Your task to perform on an android device: turn off airplane mode Image 0: 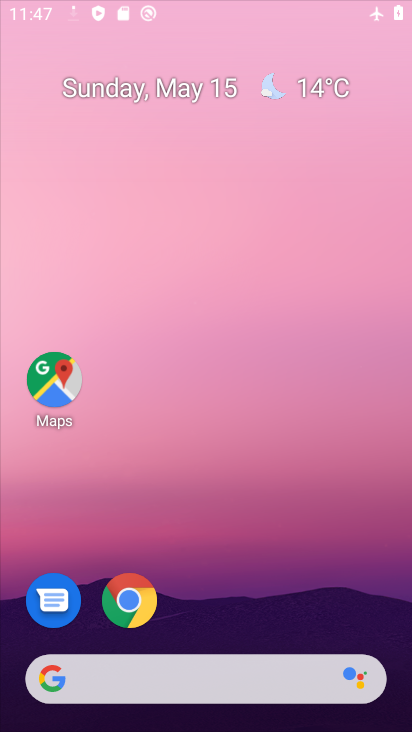
Step 0: drag from (225, 555) to (236, 6)
Your task to perform on an android device: turn off airplane mode Image 1: 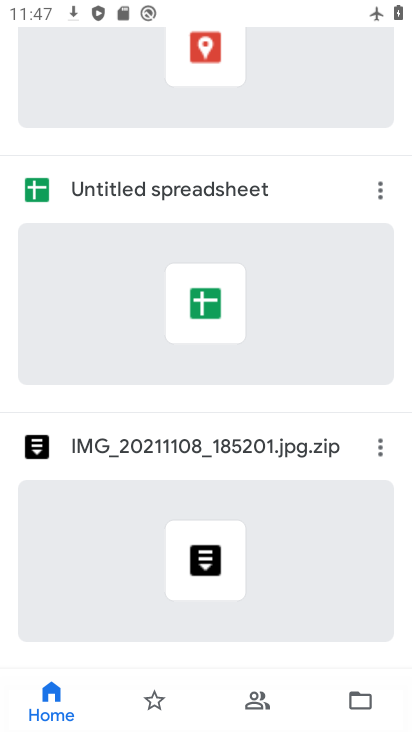
Step 1: press back button
Your task to perform on an android device: turn off airplane mode Image 2: 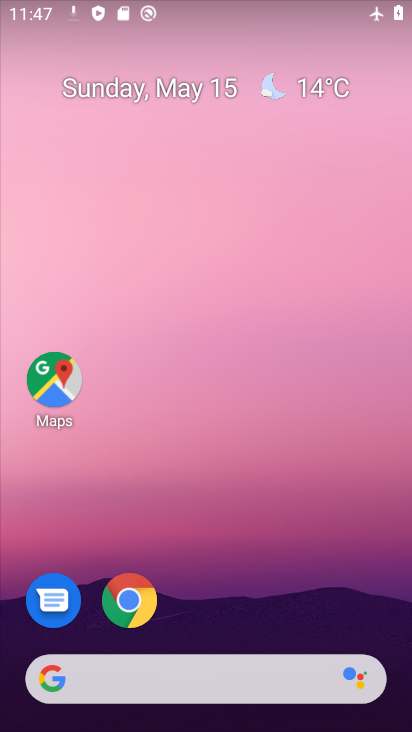
Step 2: drag from (229, 600) to (226, 59)
Your task to perform on an android device: turn off airplane mode Image 3: 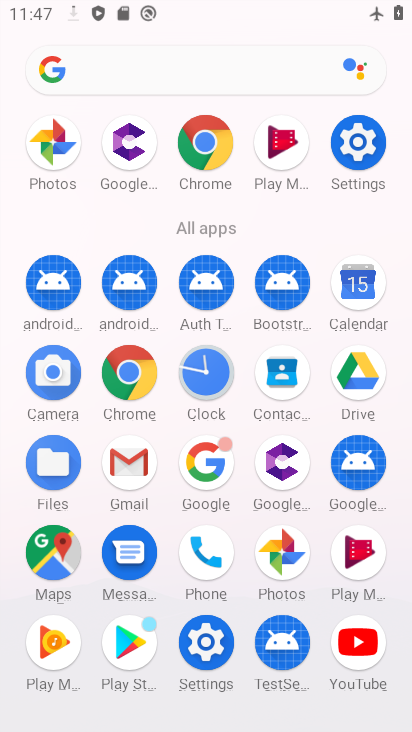
Step 3: click (354, 139)
Your task to perform on an android device: turn off airplane mode Image 4: 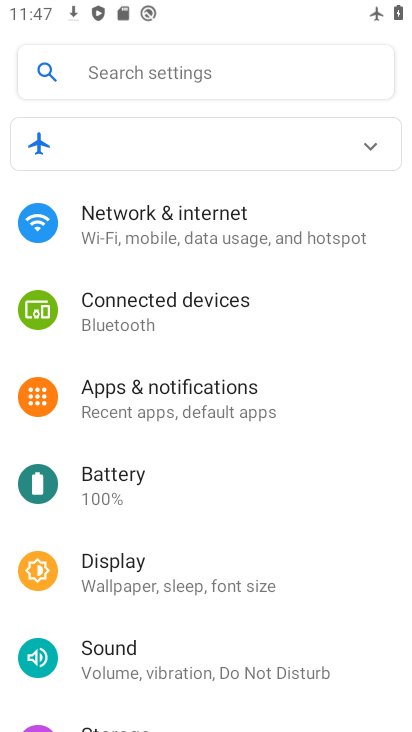
Step 4: drag from (227, 508) to (227, 146)
Your task to perform on an android device: turn off airplane mode Image 5: 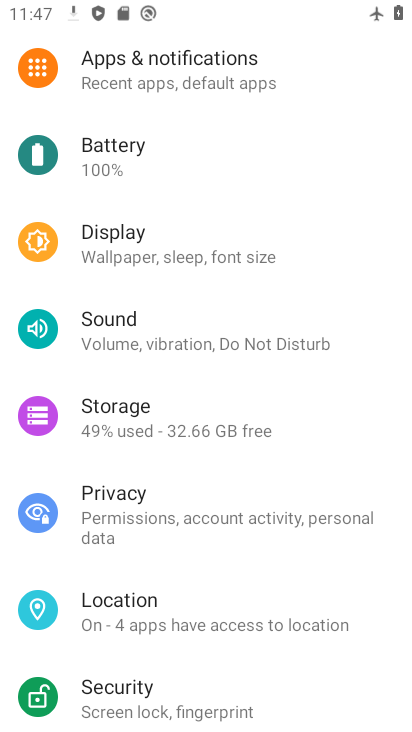
Step 5: drag from (227, 145) to (229, 485)
Your task to perform on an android device: turn off airplane mode Image 6: 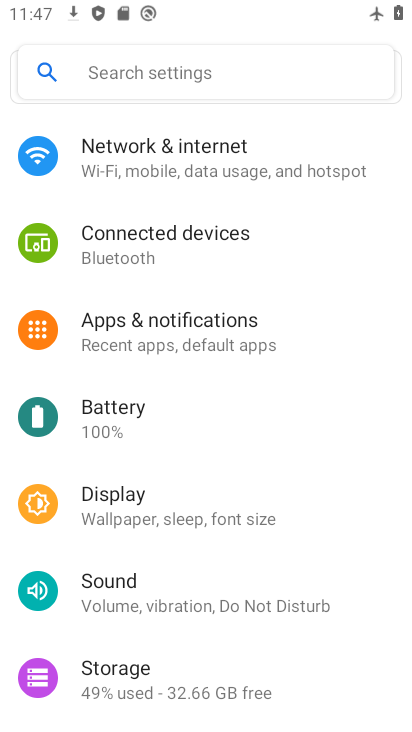
Step 6: drag from (241, 566) to (259, 236)
Your task to perform on an android device: turn off airplane mode Image 7: 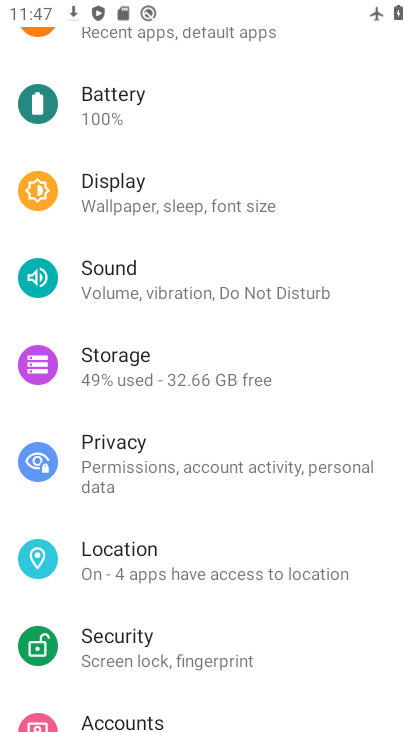
Step 7: drag from (247, 589) to (269, 153)
Your task to perform on an android device: turn off airplane mode Image 8: 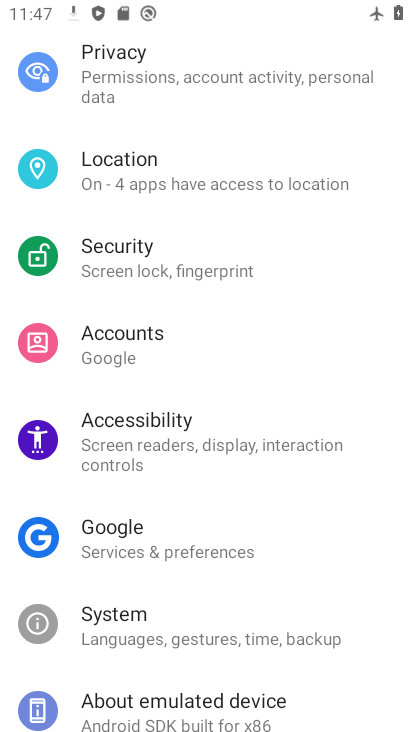
Step 8: drag from (272, 149) to (285, 546)
Your task to perform on an android device: turn off airplane mode Image 9: 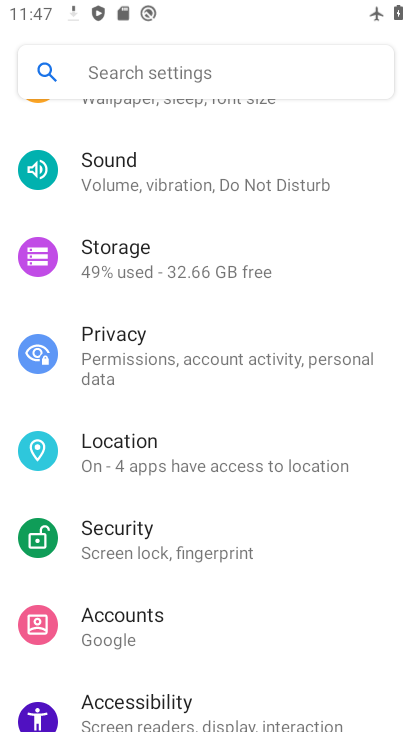
Step 9: drag from (271, 231) to (317, 617)
Your task to perform on an android device: turn off airplane mode Image 10: 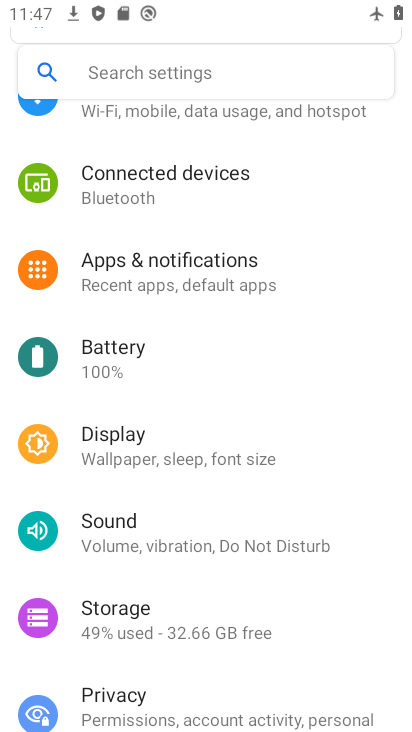
Step 10: drag from (235, 165) to (231, 539)
Your task to perform on an android device: turn off airplane mode Image 11: 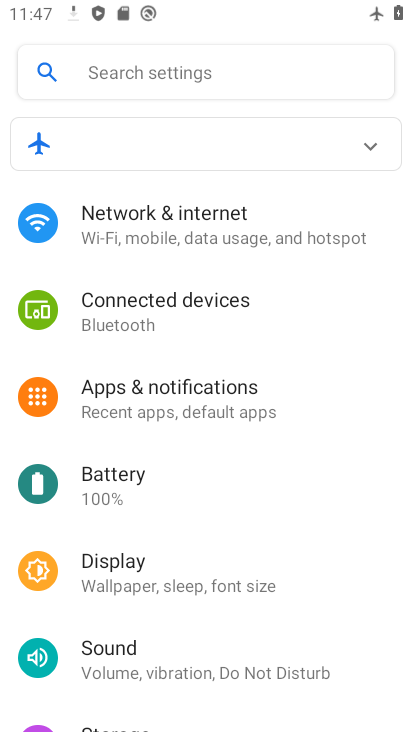
Step 11: click (192, 226)
Your task to perform on an android device: turn off airplane mode Image 12: 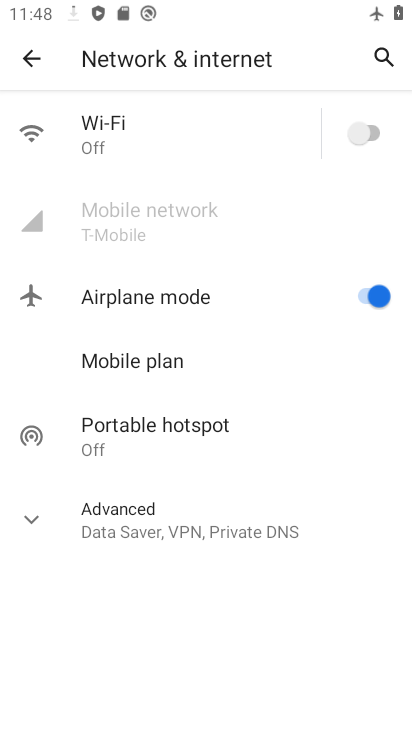
Step 12: click (370, 298)
Your task to perform on an android device: turn off airplane mode Image 13: 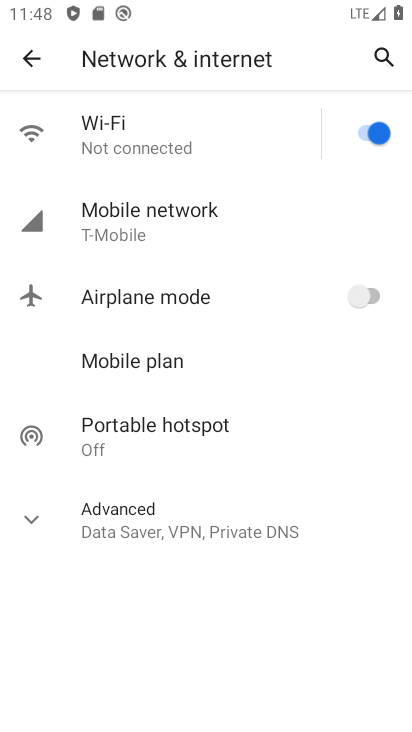
Step 13: task complete